Your task to perform on an android device: turn off priority inbox in the gmail app Image 0: 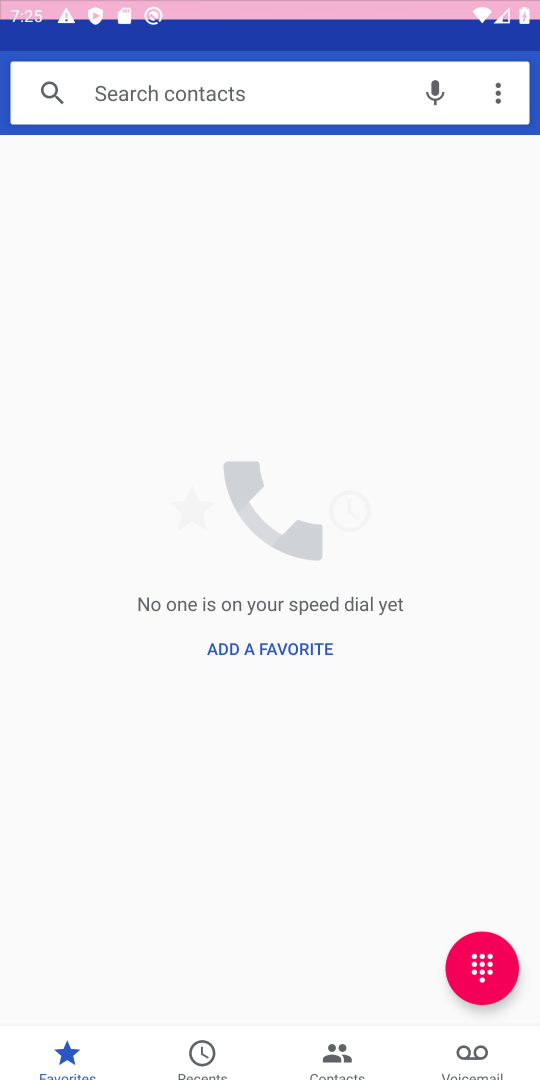
Step 0: press home button
Your task to perform on an android device: turn off priority inbox in the gmail app Image 1: 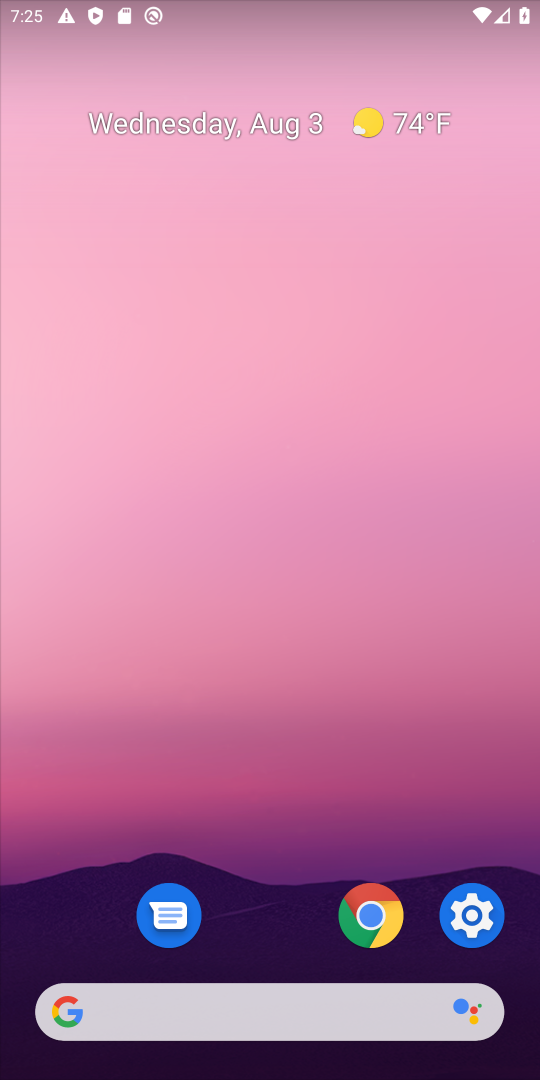
Step 1: drag from (363, 958) to (295, 145)
Your task to perform on an android device: turn off priority inbox in the gmail app Image 2: 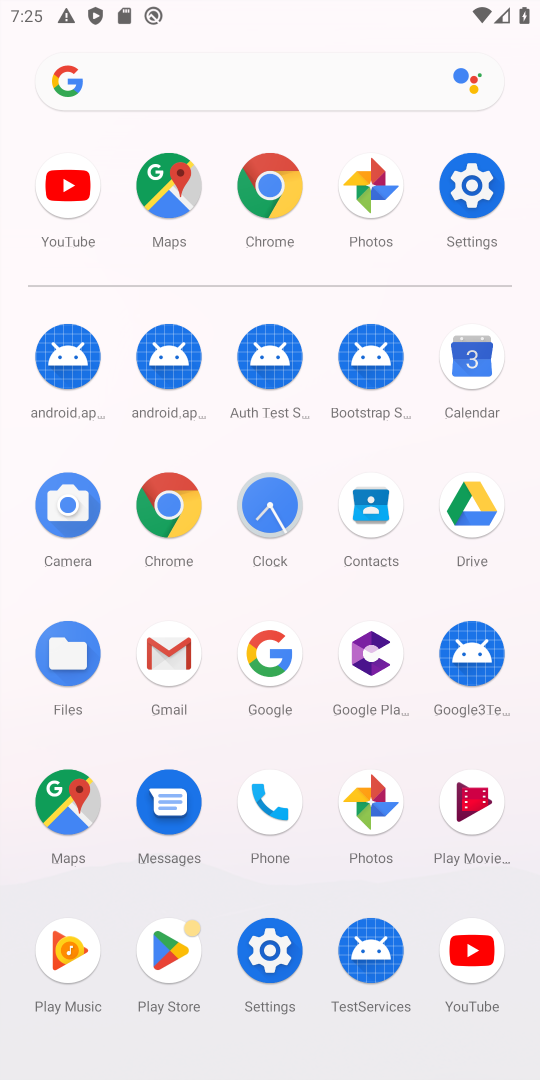
Step 2: drag from (157, 650) to (509, 959)
Your task to perform on an android device: turn off priority inbox in the gmail app Image 3: 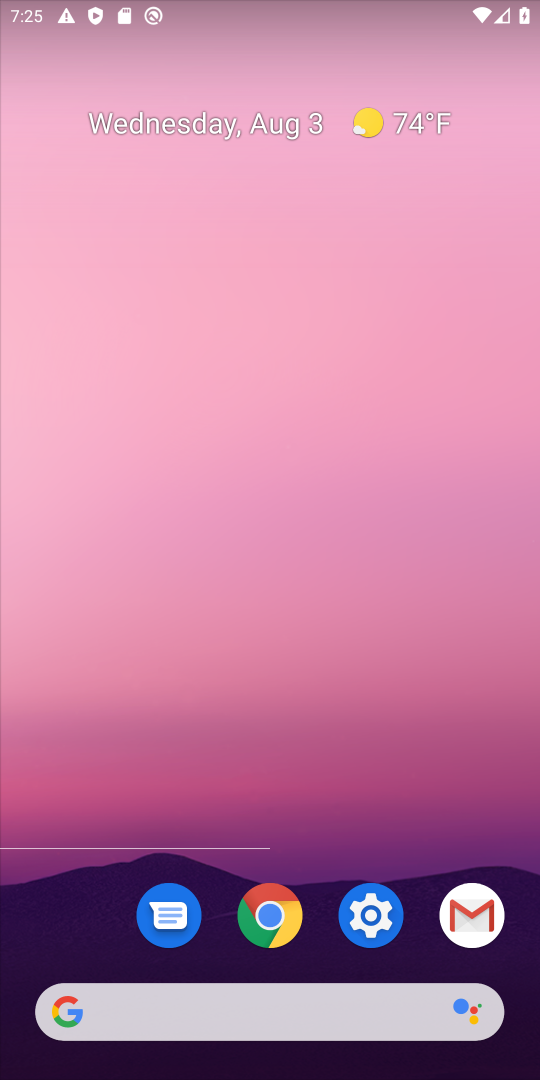
Step 3: click (474, 910)
Your task to perform on an android device: turn off priority inbox in the gmail app Image 4: 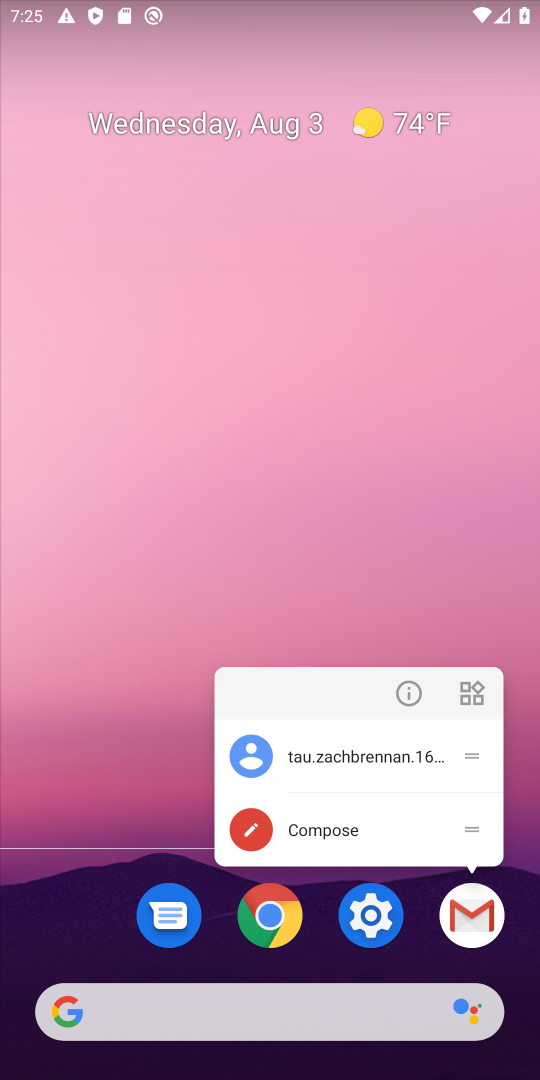
Step 4: click (483, 927)
Your task to perform on an android device: turn off priority inbox in the gmail app Image 5: 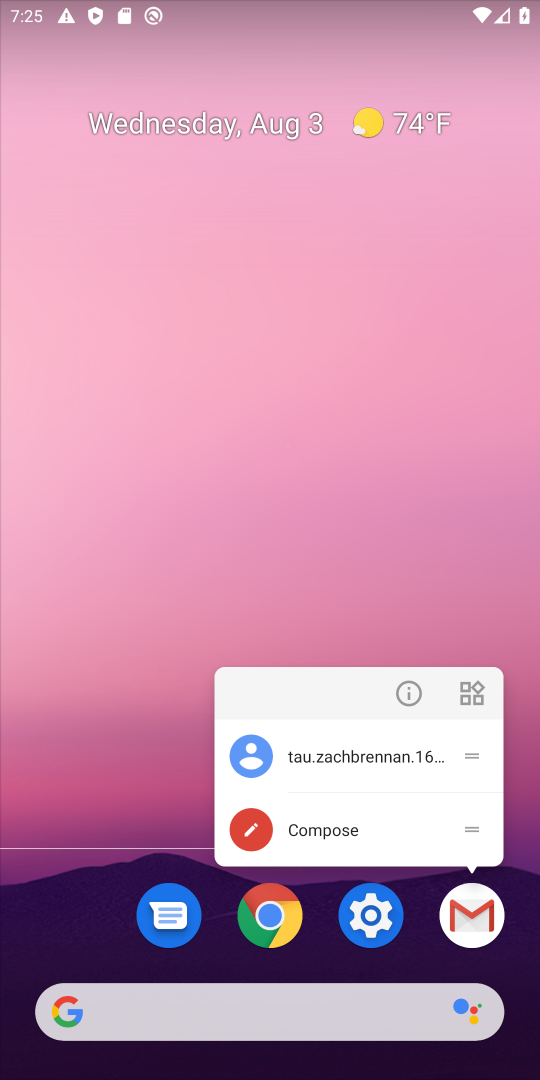
Step 5: click (483, 927)
Your task to perform on an android device: turn off priority inbox in the gmail app Image 6: 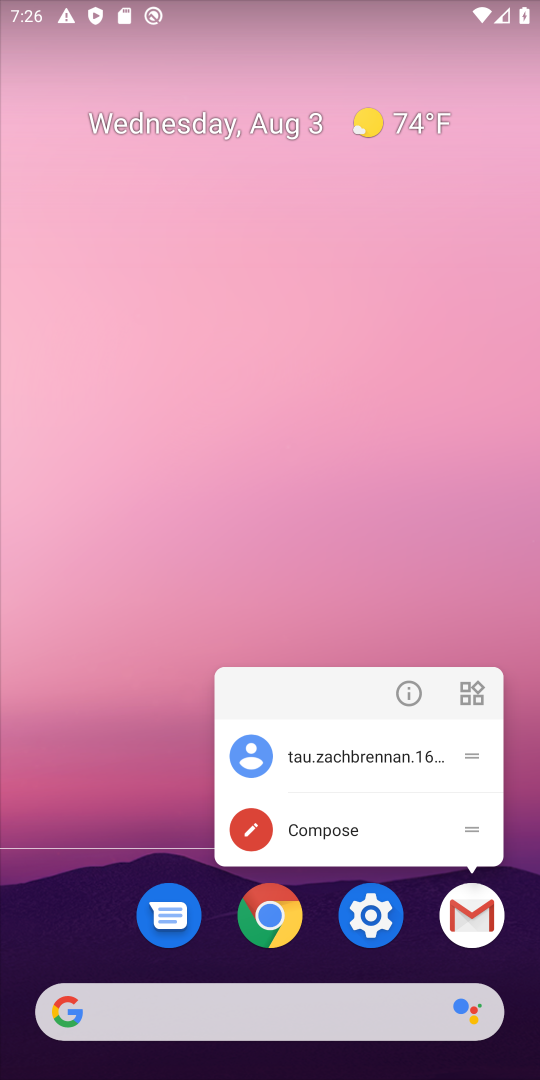
Step 6: drag from (388, 1020) to (203, 35)
Your task to perform on an android device: turn off priority inbox in the gmail app Image 7: 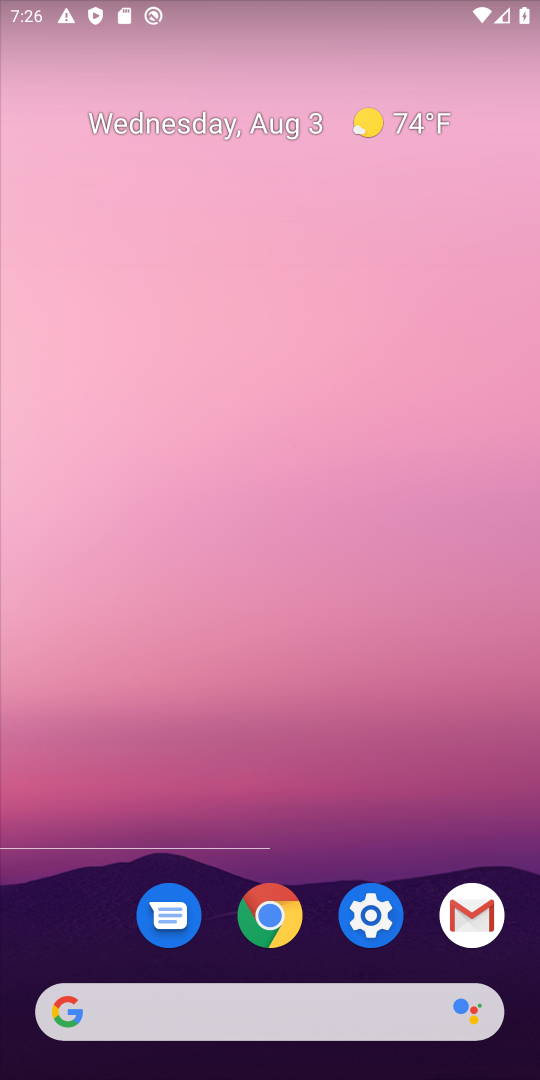
Step 7: drag from (305, 1020) to (243, 71)
Your task to perform on an android device: turn off priority inbox in the gmail app Image 8: 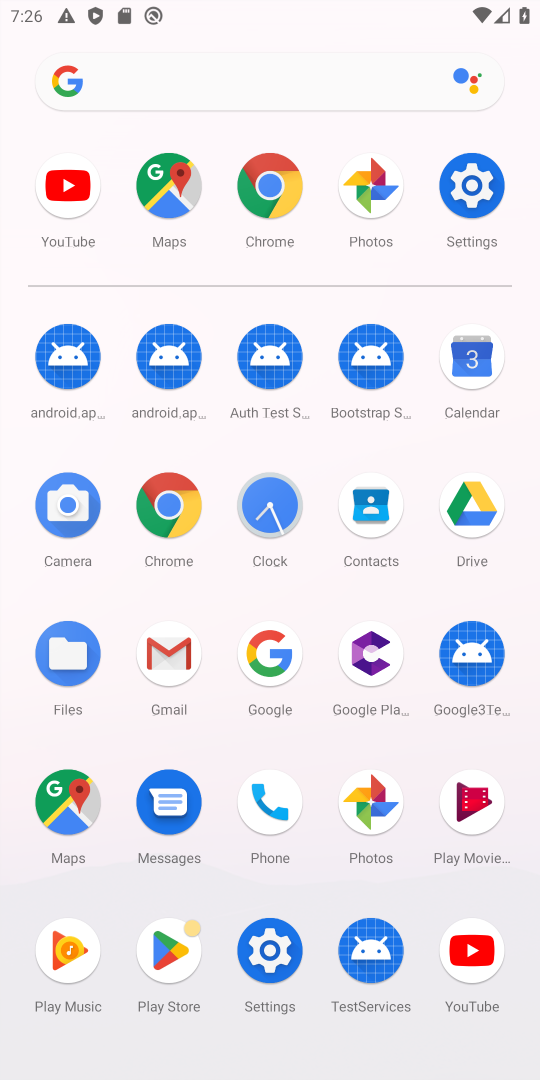
Step 8: click (160, 629)
Your task to perform on an android device: turn off priority inbox in the gmail app Image 9: 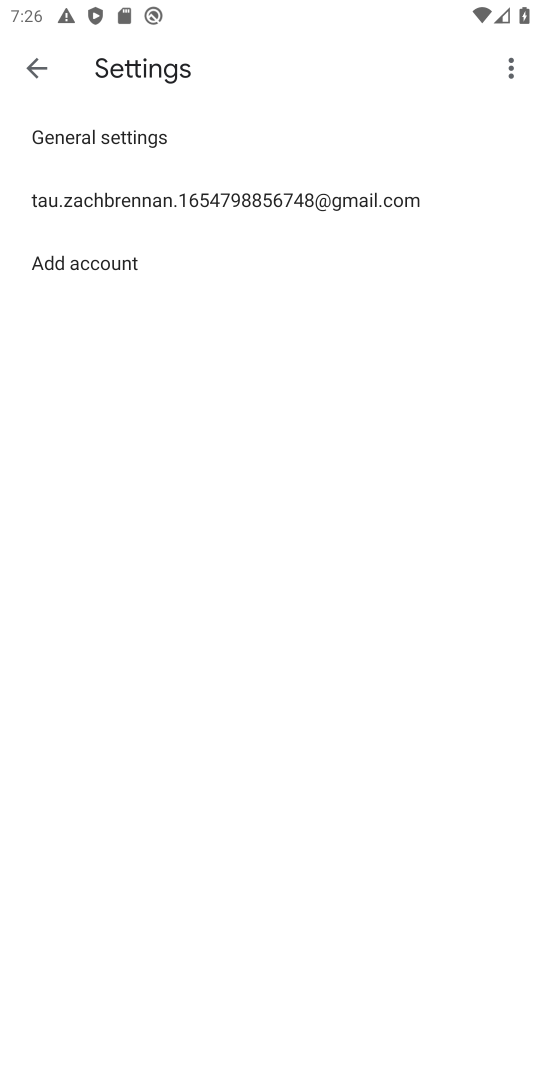
Step 9: click (167, 195)
Your task to perform on an android device: turn off priority inbox in the gmail app Image 10: 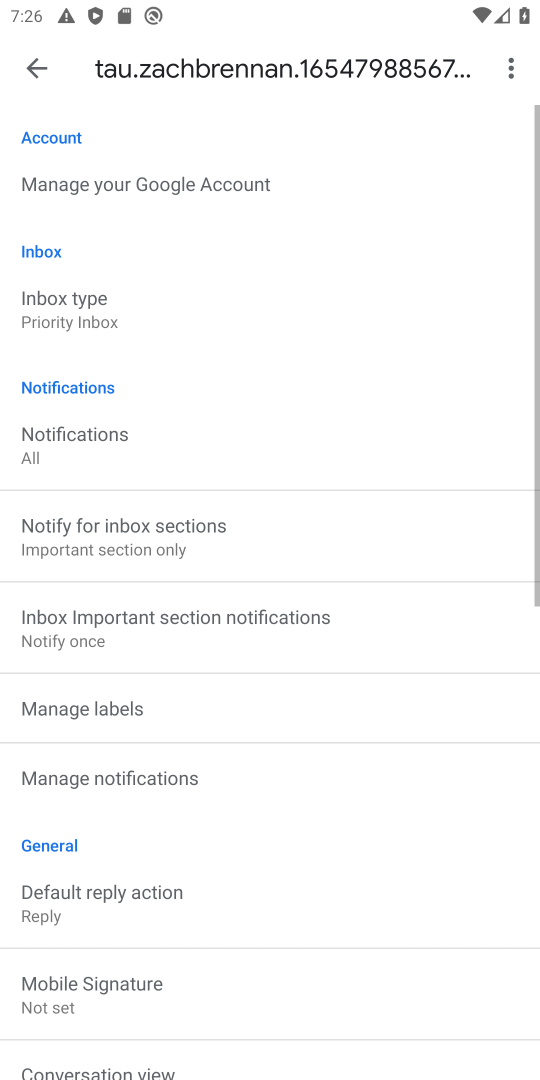
Step 10: click (114, 315)
Your task to perform on an android device: turn off priority inbox in the gmail app Image 11: 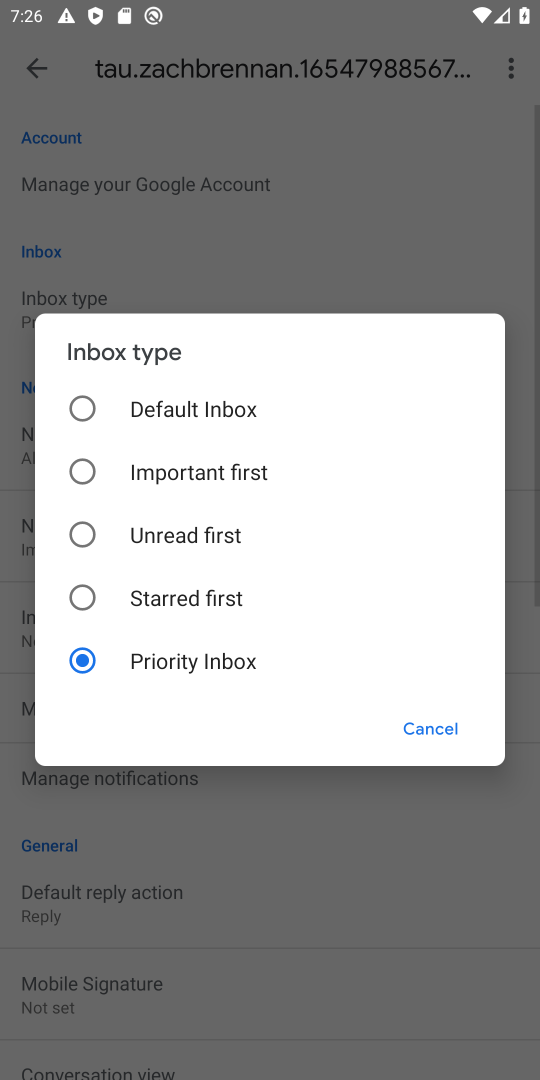
Step 11: click (172, 402)
Your task to perform on an android device: turn off priority inbox in the gmail app Image 12: 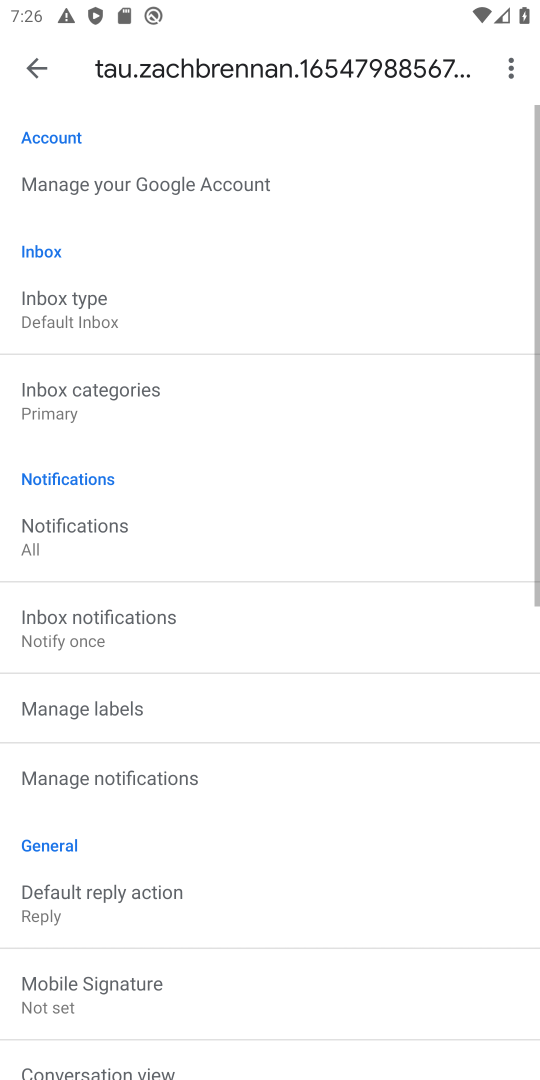
Step 12: task complete